Your task to perform on an android device: toggle sleep mode Image 0: 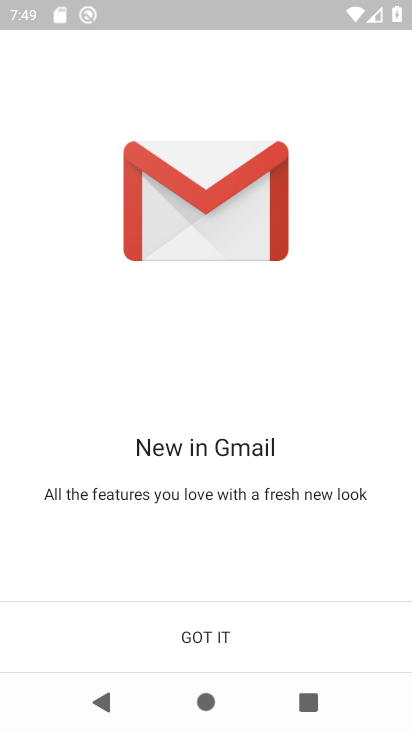
Step 0: click (181, 651)
Your task to perform on an android device: toggle sleep mode Image 1: 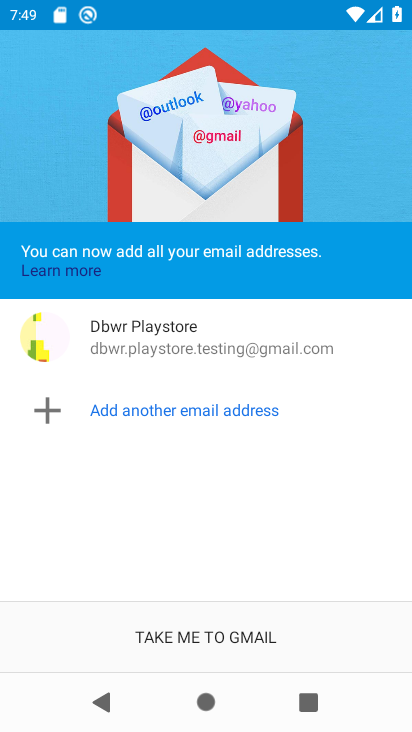
Step 1: click (181, 651)
Your task to perform on an android device: toggle sleep mode Image 2: 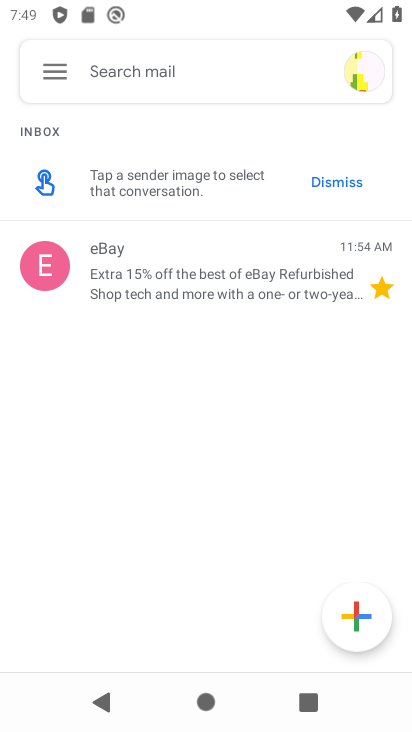
Step 2: press home button
Your task to perform on an android device: toggle sleep mode Image 3: 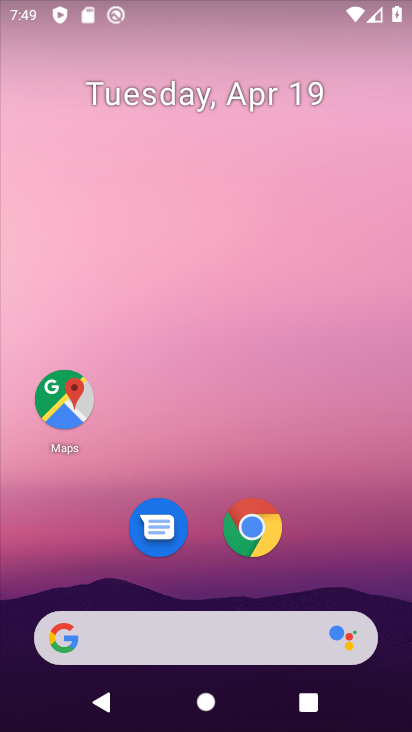
Step 3: drag from (203, 585) to (226, 180)
Your task to perform on an android device: toggle sleep mode Image 4: 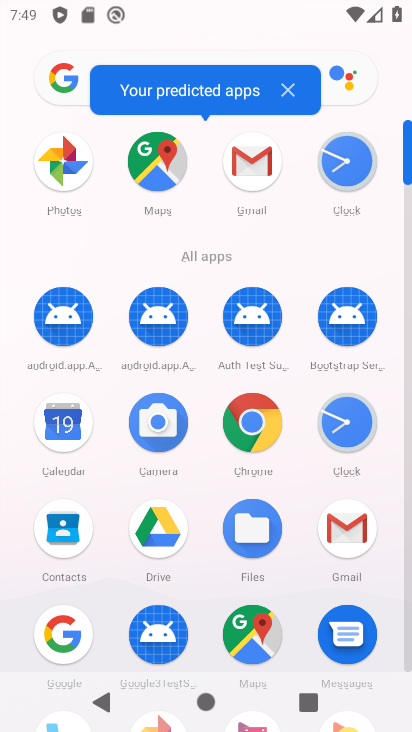
Step 4: drag from (206, 512) to (217, 219)
Your task to perform on an android device: toggle sleep mode Image 5: 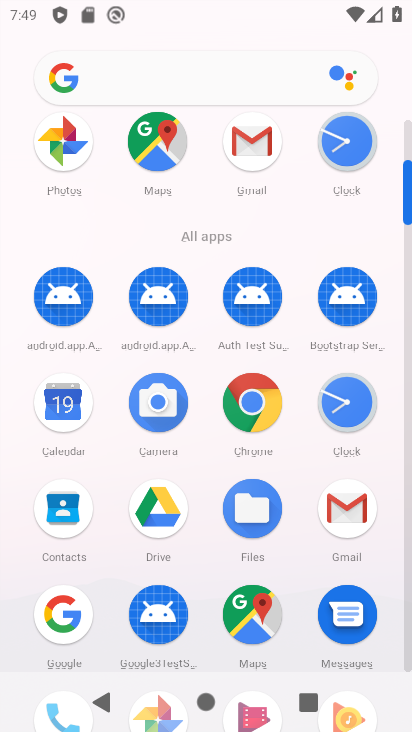
Step 5: drag from (205, 396) to (215, 309)
Your task to perform on an android device: toggle sleep mode Image 6: 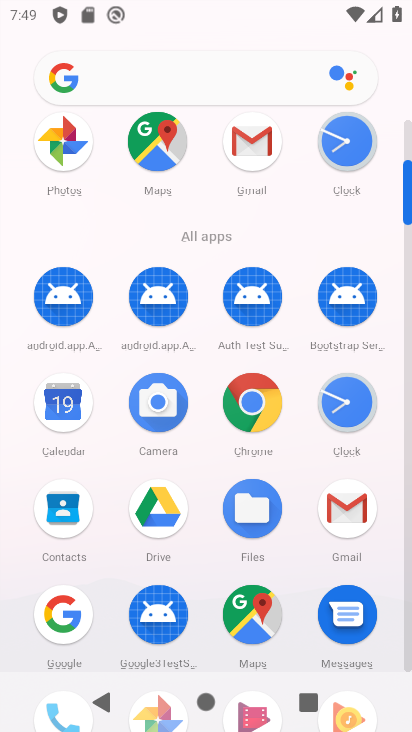
Step 6: drag from (202, 564) to (196, 236)
Your task to perform on an android device: toggle sleep mode Image 7: 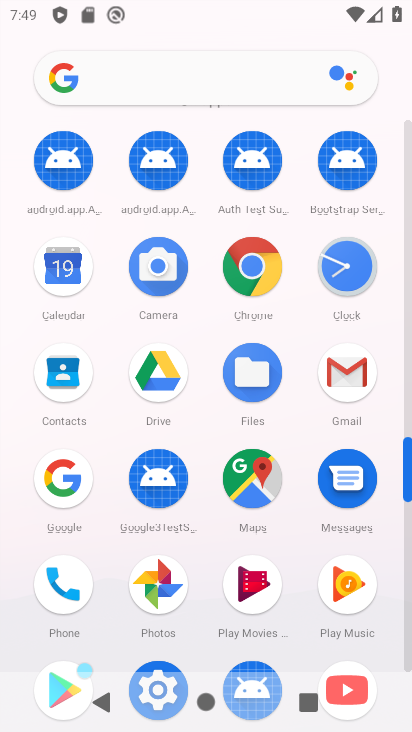
Step 7: click (160, 668)
Your task to perform on an android device: toggle sleep mode Image 8: 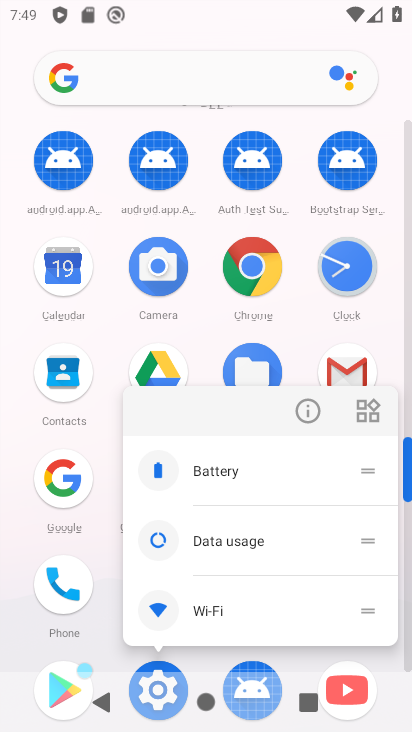
Step 8: click (171, 673)
Your task to perform on an android device: toggle sleep mode Image 9: 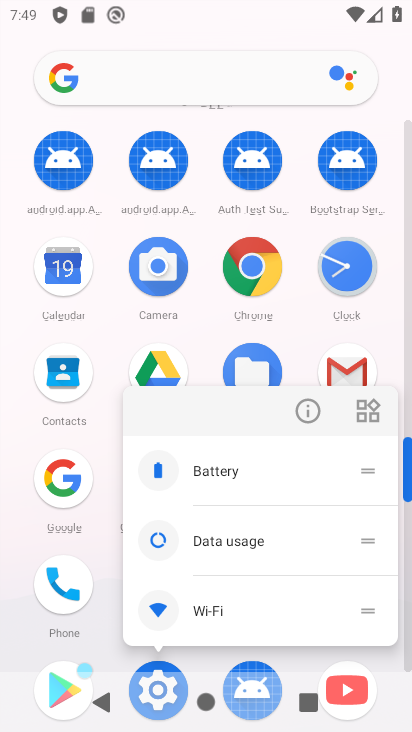
Step 9: click (165, 671)
Your task to perform on an android device: toggle sleep mode Image 10: 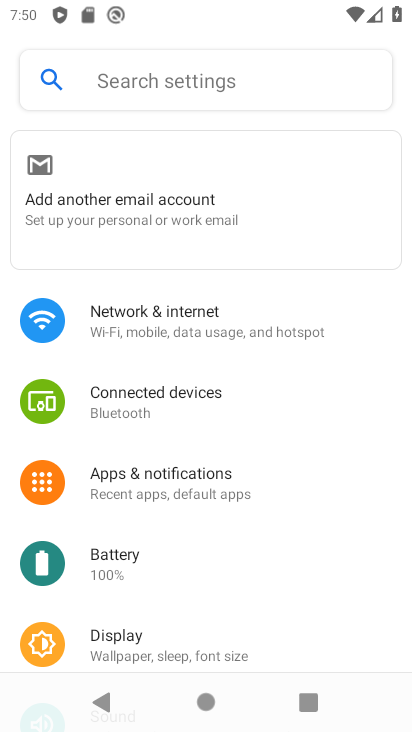
Step 10: click (160, 628)
Your task to perform on an android device: toggle sleep mode Image 11: 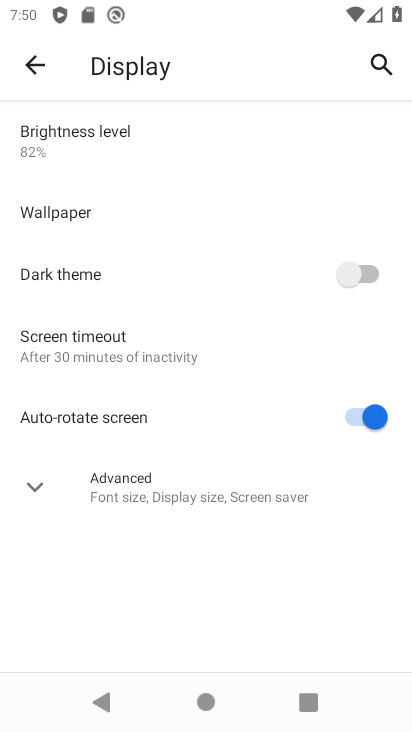
Step 11: click (142, 336)
Your task to perform on an android device: toggle sleep mode Image 12: 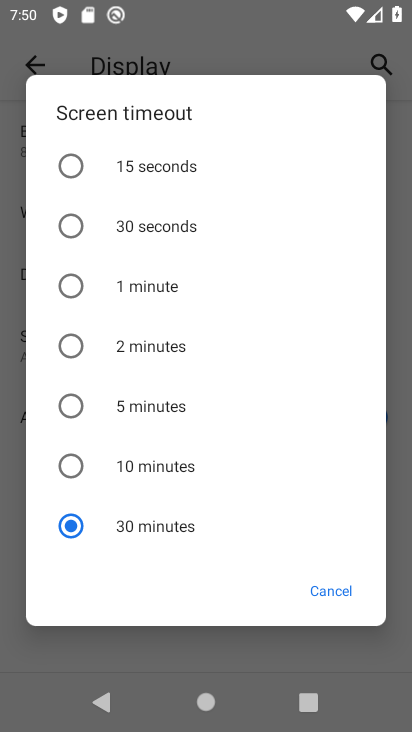
Step 12: click (143, 335)
Your task to perform on an android device: toggle sleep mode Image 13: 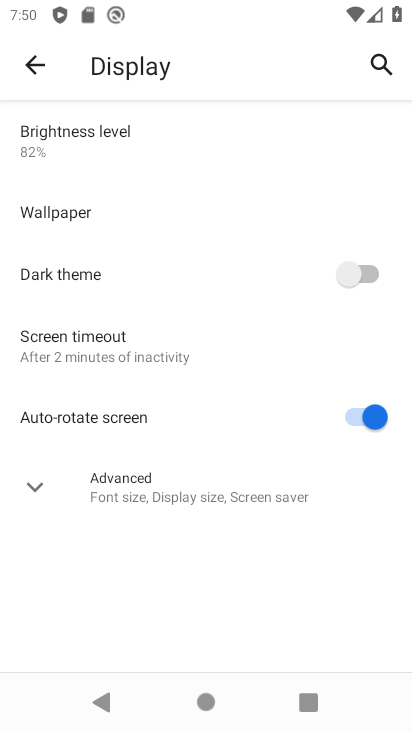
Step 13: task complete